Your task to perform on an android device: Open network settings Image 0: 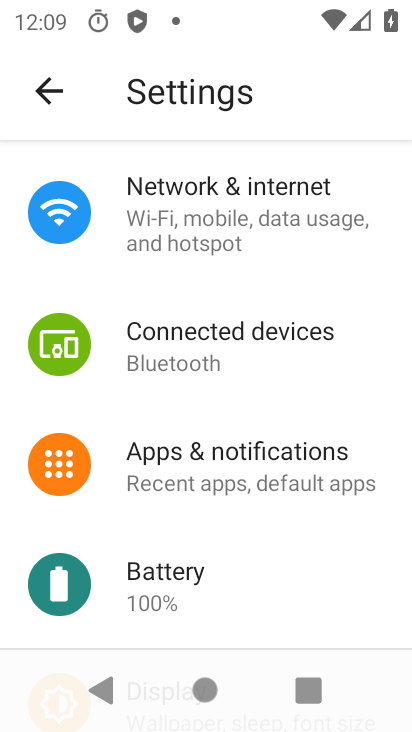
Step 0: press home button
Your task to perform on an android device: Open network settings Image 1: 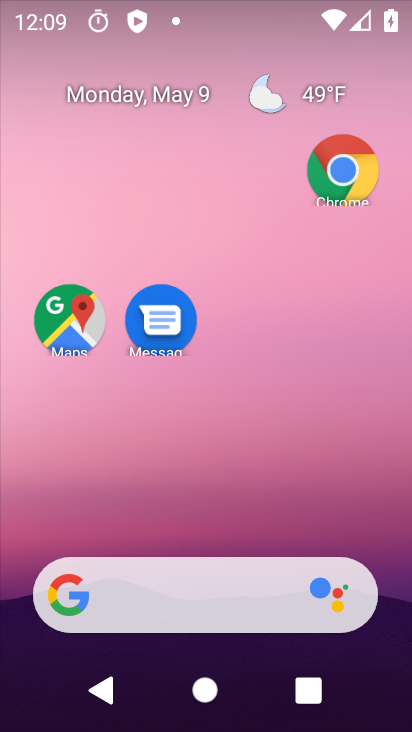
Step 1: drag from (218, 382) to (236, 19)
Your task to perform on an android device: Open network settings Image 2: 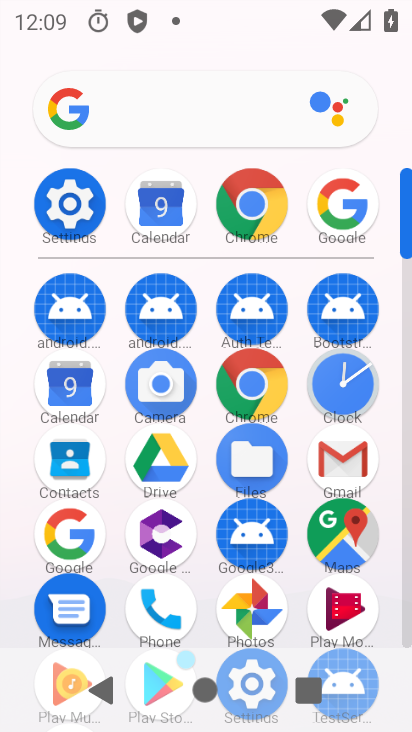
Step 2: click (79, 208)
Your task to perform on an android device: Open network settings Image 3: 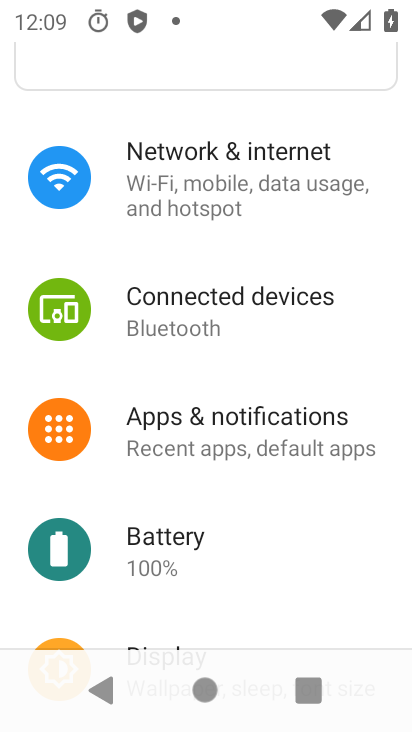
Step 3: click (75, 182)
Your task to perform on an android device: Open network settings Image 4: 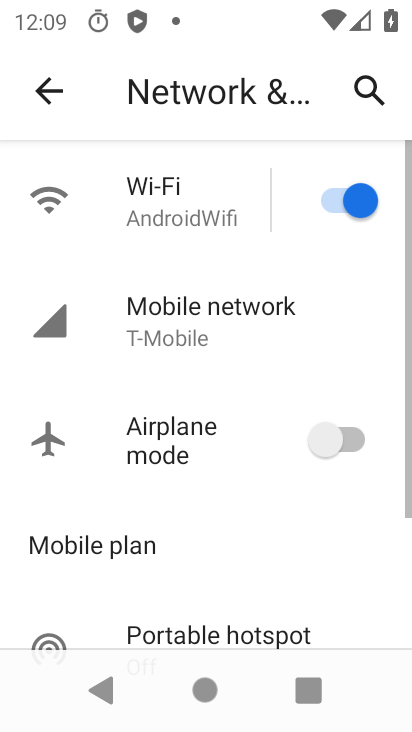
Step 4: task complete